Your task to perform on an android device: Go to wifi settings Image 0: 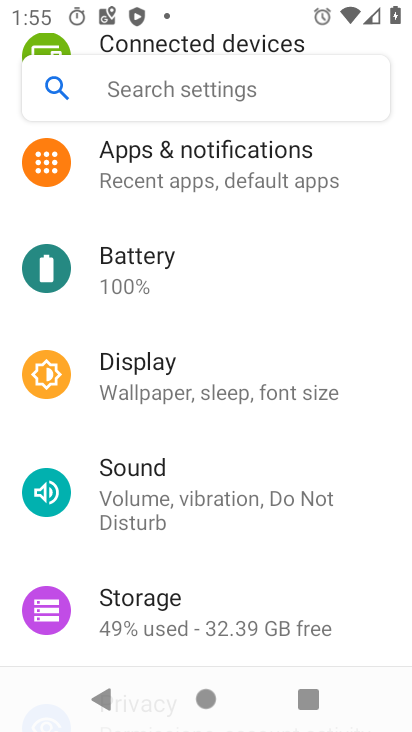
Step 0: drag from (208, 148) to (204, 591)
Your task to perform on an android device: Go to wifi settings Image 1: 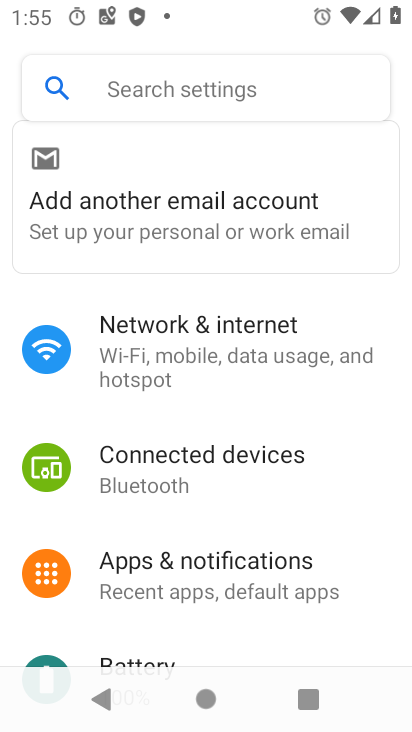
Step 1: click (188, 337)
Your task to perform on an android device: Go to wifi settings Image 2: 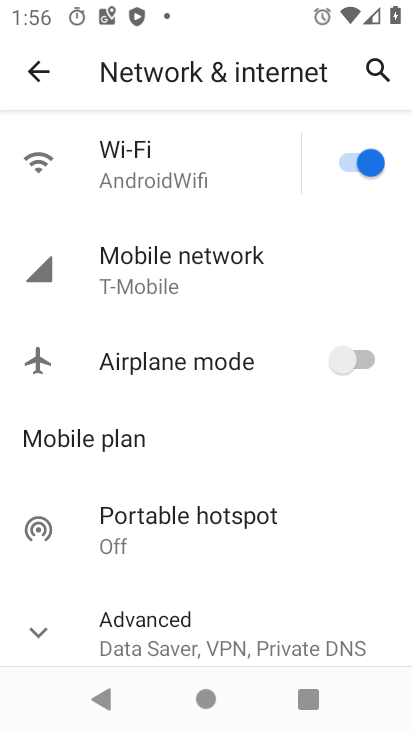
Step 2: click (140, 173)
Your task to perform on an android device: Go to wifi settings Image 3: 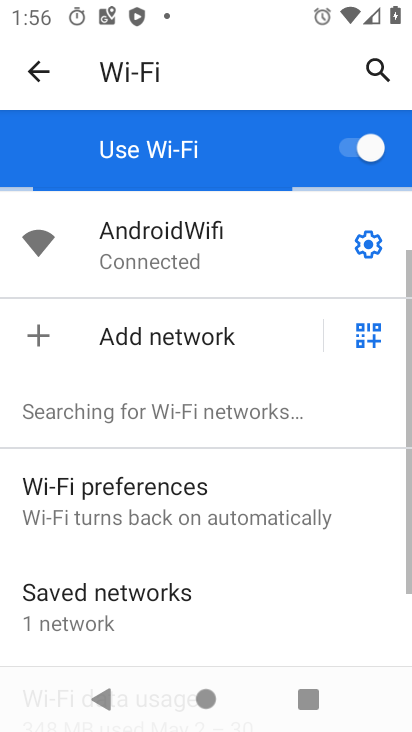
Step 3: task complete